Your task to perform on an android device: turn on sleep mode Image 0: 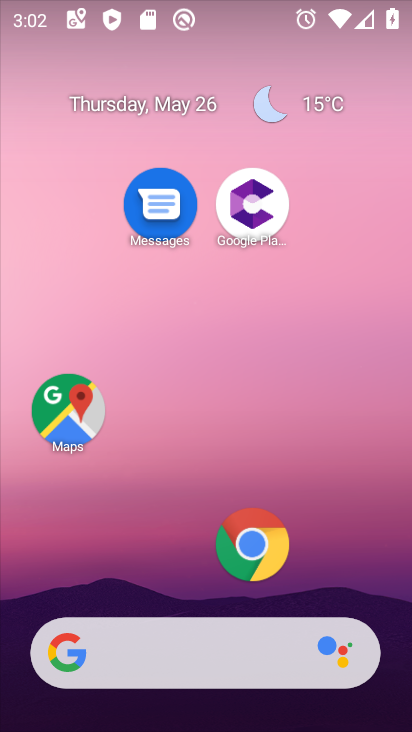
Step 0: drag from (245, 22) to (323, 571)
Your task to perform on an android device: turn on sleep mode Image 1: 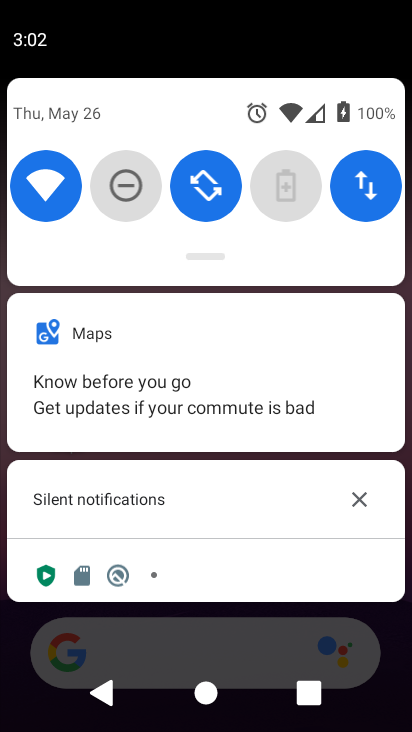
Step 1: drag from (182, 150) to (192, 727)
Your task to perform on an android device: turn on sleep mode Image 2: 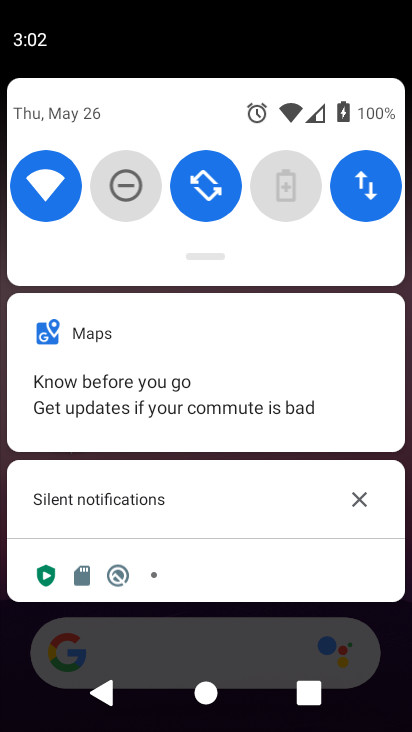
Step 2: drag from (220, 122) to (15, 675)
Your task to perform on an android device: turn on sleep mode Image 3: 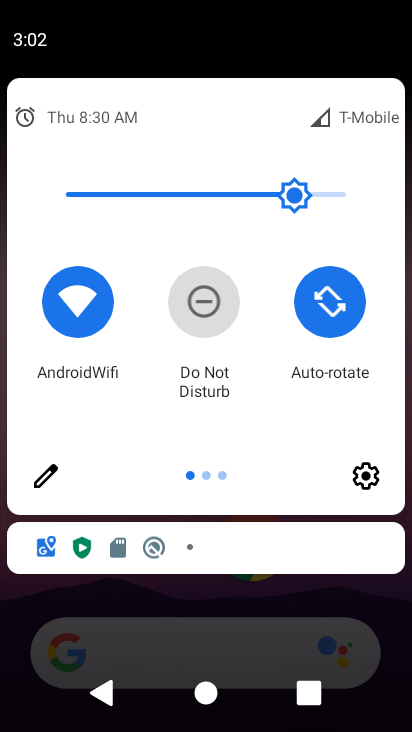
Step 3: drag from (246, 124) to (364, 731)
Your task to perform on an android device: turn on sleep mode Image 4: 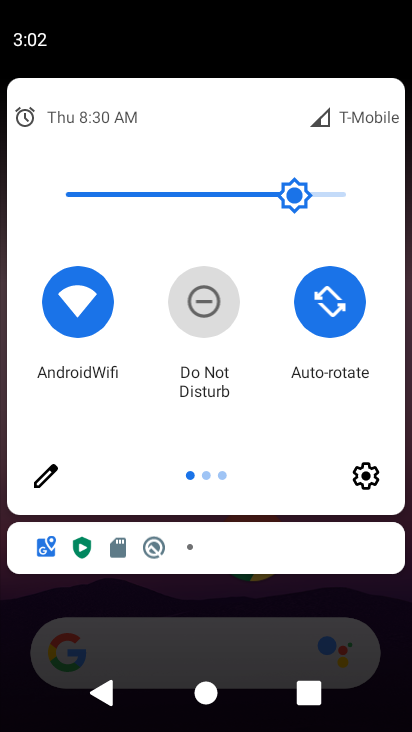
Step 4: click (374, 467)
Your task to perform on an android device: turn on sleep mode Image 5: 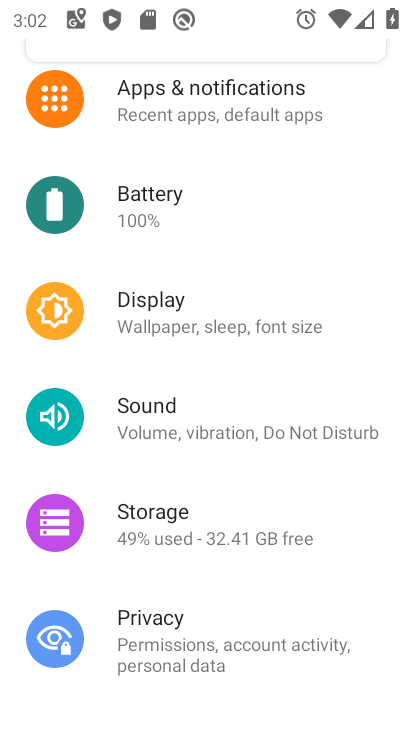
Step 5: task complete